Your task to perform on an android device: open wifi settings Image 0: 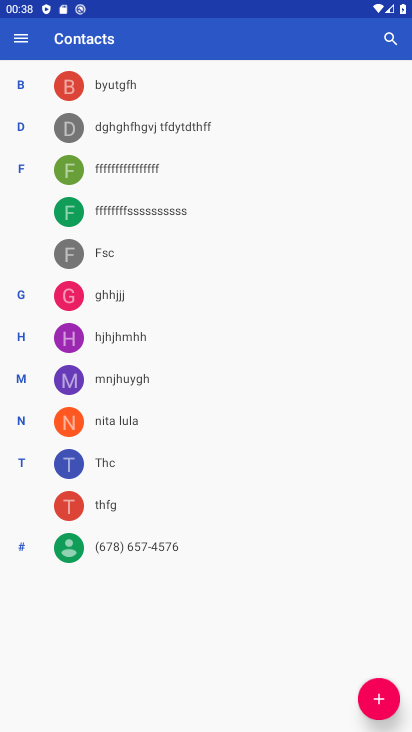
Step 0: press home button
Your task to perform on an android device: open wifi settings Image 1: 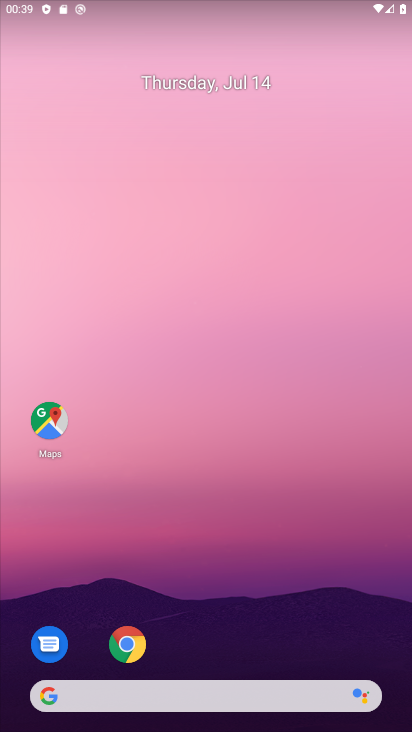
Step 1: drag from (274, 703) to (194, 207)
Your task to perform on an android device: open wifi settings Image 2: 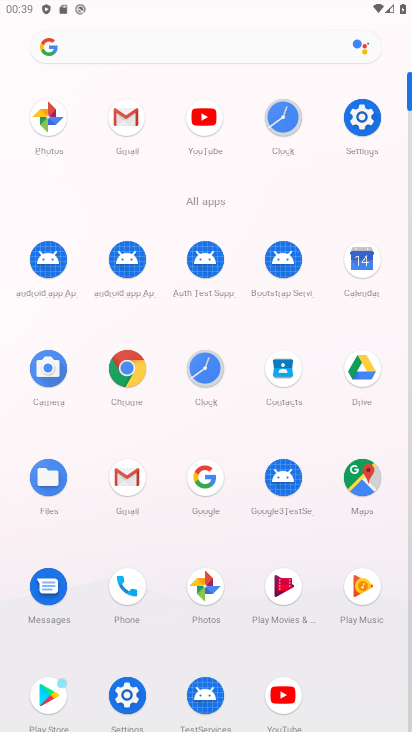
Step 2: click (358, 136)
Your task to perform on an android device: open wifi settings Image 3: 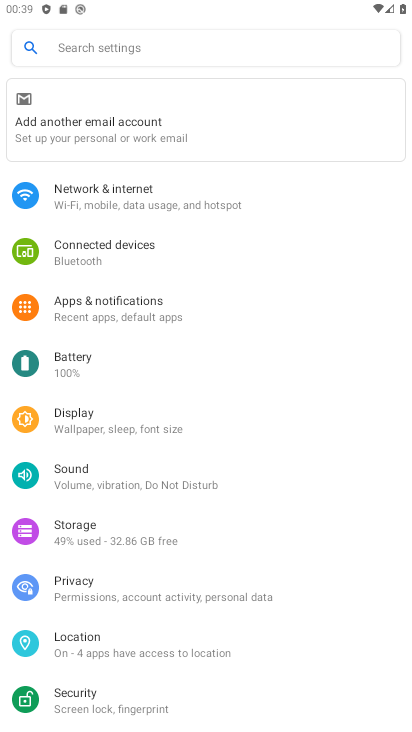
Step 3: click (114, 202)
Your task to perform on an android device: open wifi settings Image 4: 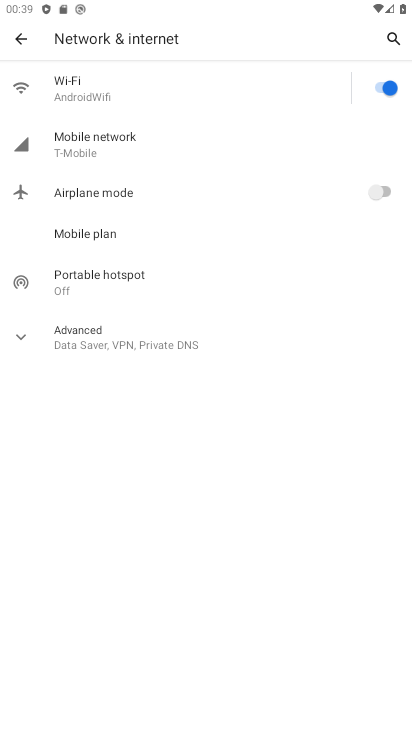
Step 4: click (123, 83)
Your task to perform on an android device: open wifi settings Image 5: 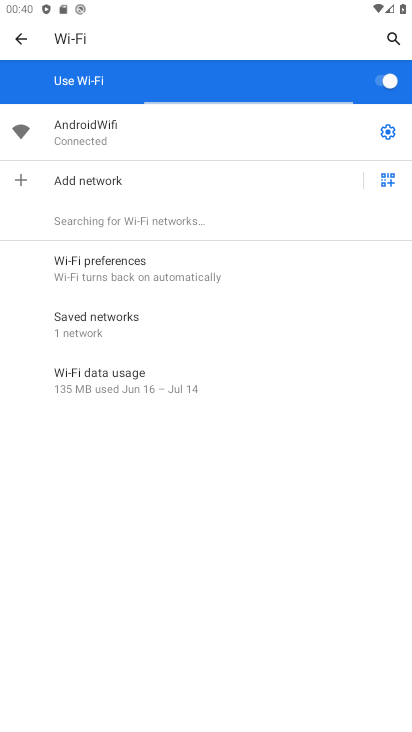
Step 5: task complete